Your task to perform on an android device: allow cookies in the chrome app Image 0: 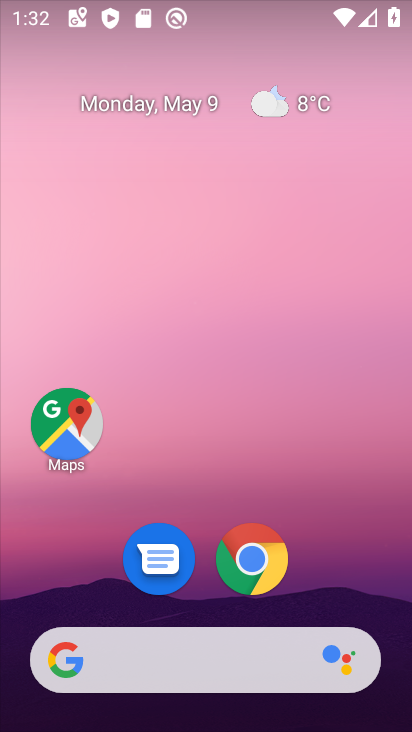
Step 0: click (259, 564)
Your task to perform on an android device: allow cookies in the chrome app Image 1: 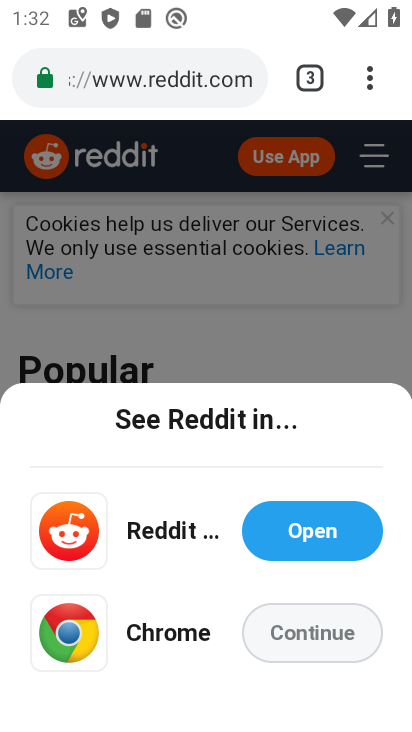
Step 1: click (360, 79)
Your task to perform on an android device: allow cookies in the chrome app Image 2: 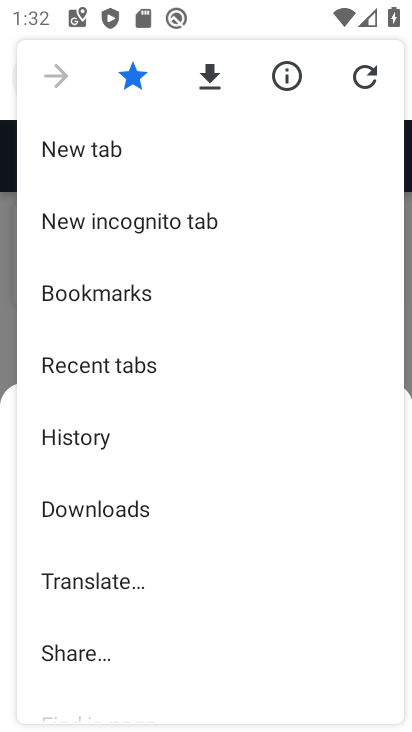
Step 2: drag from (178, 523) to (134, 215)
Your task to perform on an android device: allow cookies in the chrome app Image 3: 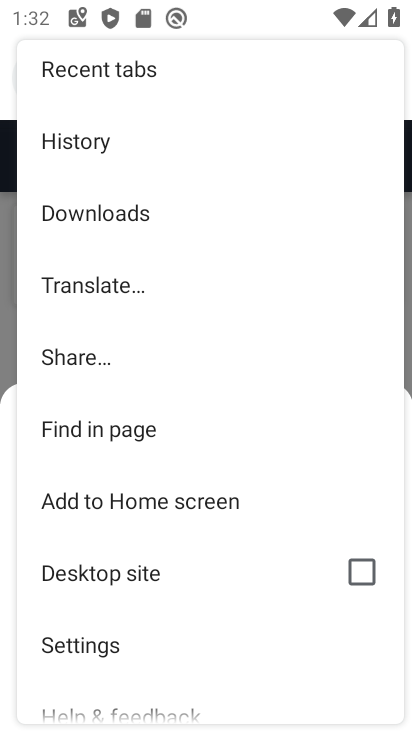
Step 3: click (82, 638)
Your task to perform on an android device: allow cookies in the chrome app Image 4: 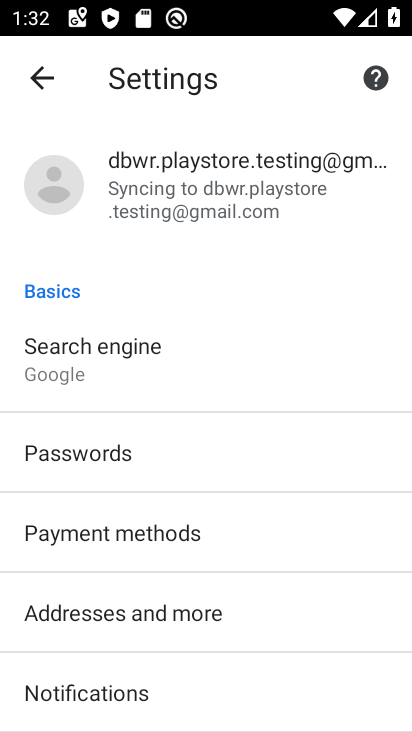
Step 4: drag from (234, 575) to (204, 318)
Your task to perform on an android device: allow cookies in the chrome app Image 5: 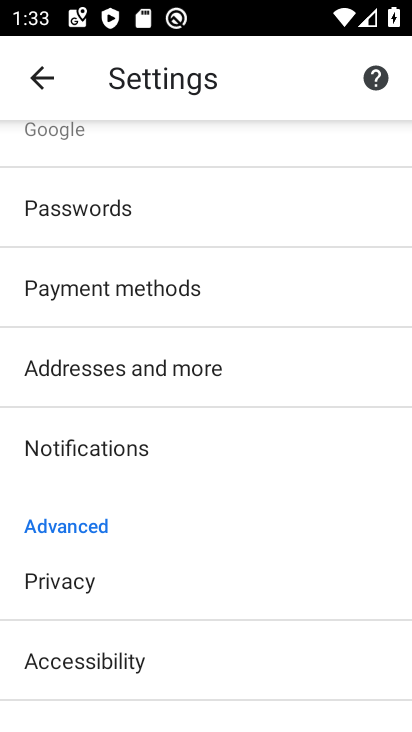
Step 5: drag from (165, 558) to (135, 134)
Your task to perform on an android device: allow cookies in the chrome app Image 6: 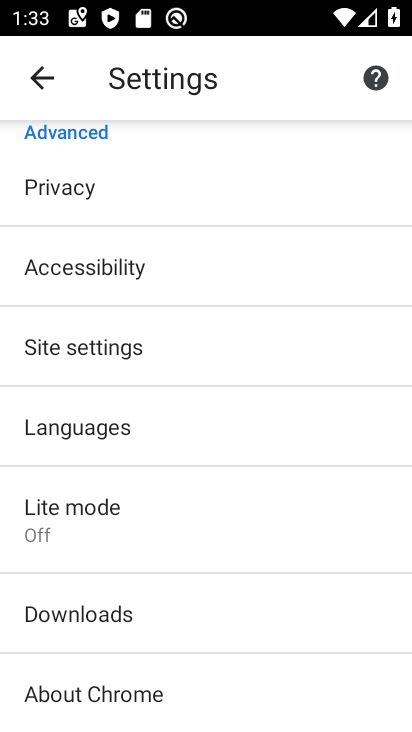
Step 6: click (72, 343)
Your task to perform on an android device: allow cookies in the chrome app Image 7: 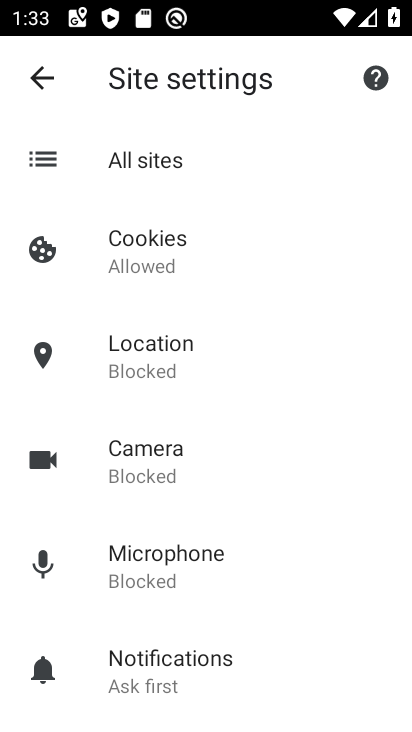
Step 7: click (122, 249)
Your task to perform on an android device: allow cookies in the chrome app Image 8: 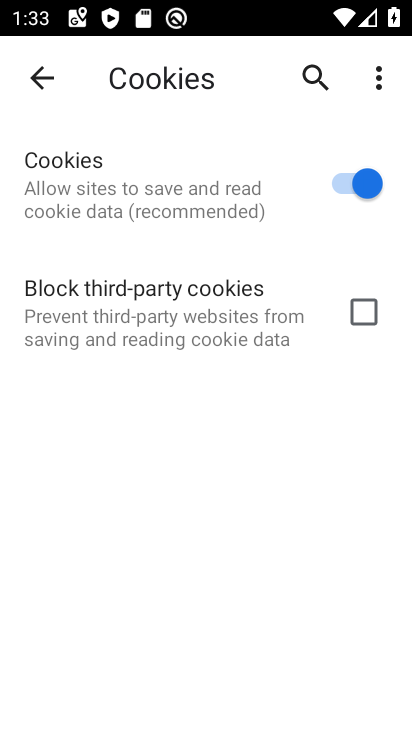
Step 8: task complete